Your task to perform on an android device: turn on wifi Image 0: 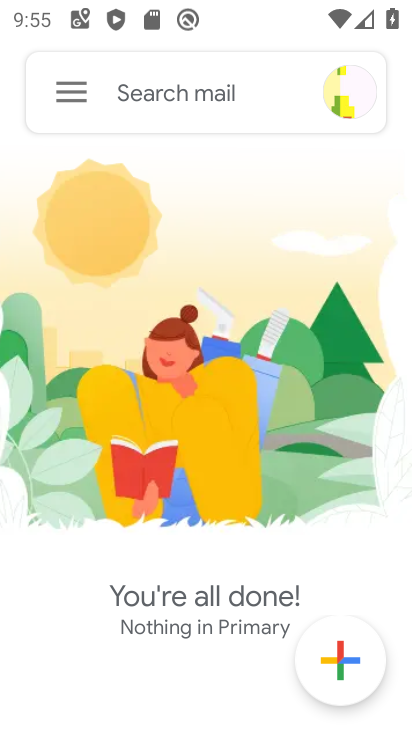
Step 0: press home button
Your task to perform on an android device: turn on wifi Image 1: 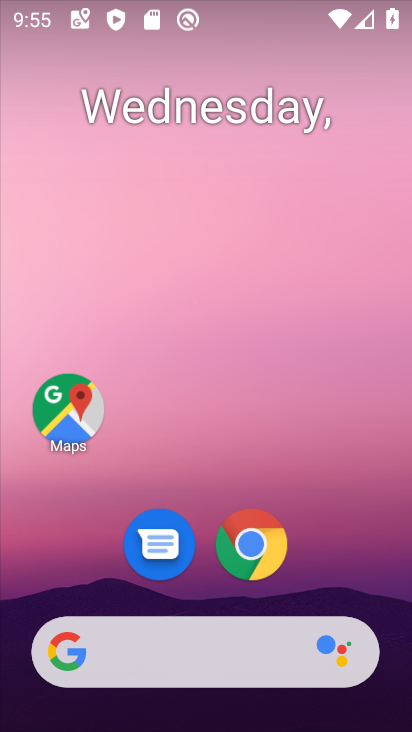
Step 1: drag from (210, 726) to (177, 105)
Your task to perform on an android device: turn on wifi Image 2: 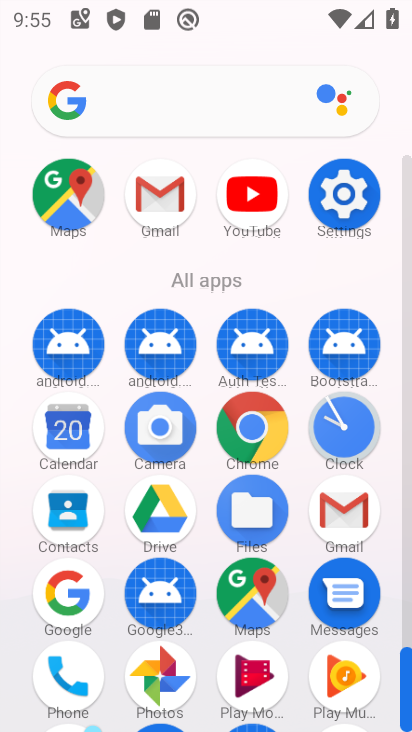
Step 2: click (343, 193)
Your task to perform on an android device: turn on wifi Image 3: 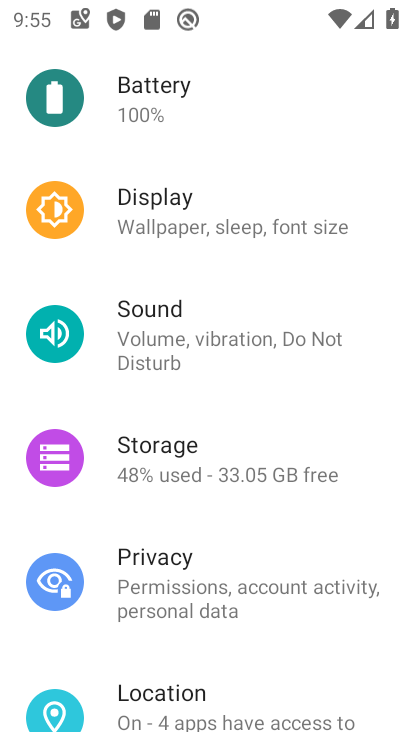
Step 3: drag from (254, 146) to (243, 517)
Your task to perform on an android device: turn on wifi Image 4: 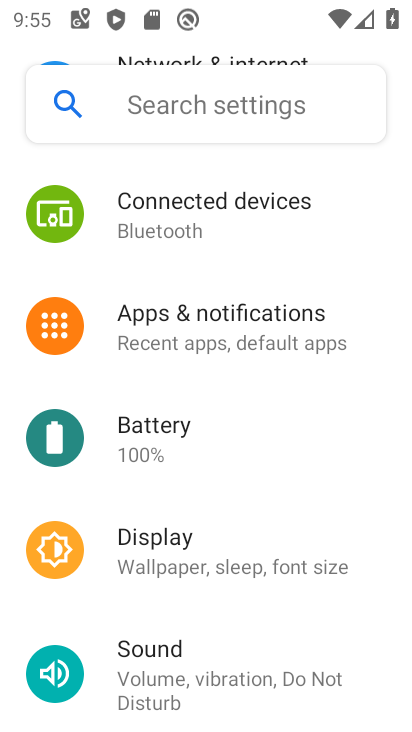
Step 4: drag from (196, 175) to (231, 564)
Your task to perform on an android device: turn on wifi Image 5: 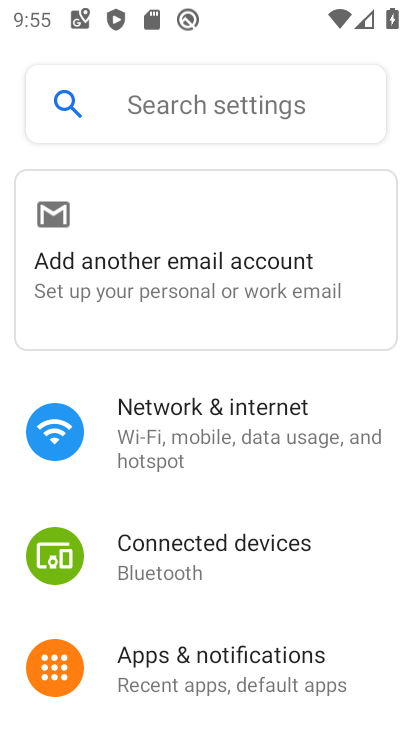
Step 5: click (212, 427)
Your task to perform on an android device: turn on wifi Image 6: 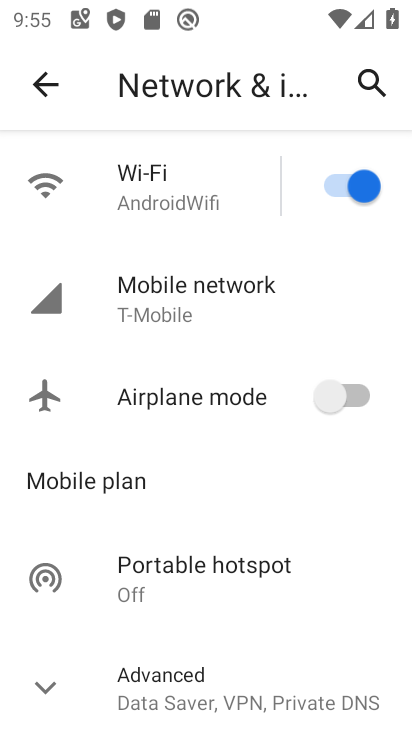
Step 6: task complete